Your task to perform on an android device: check the backup settings in the google photos Image 0: 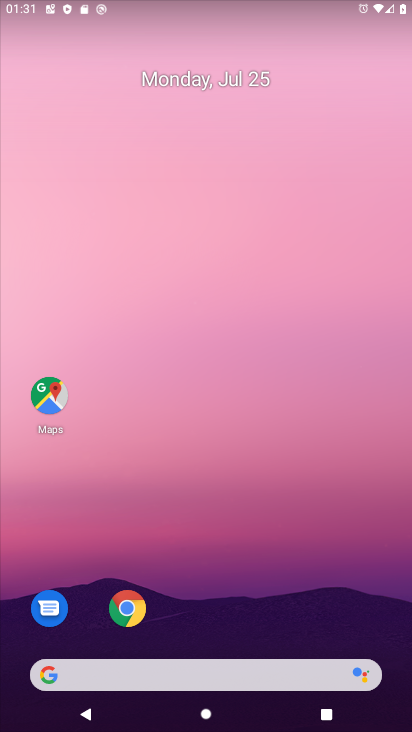
Step 0: drag from (209, 645) to (180, 60)
Your task to perform on an android device: check the backup settings in the google photos Image 1: 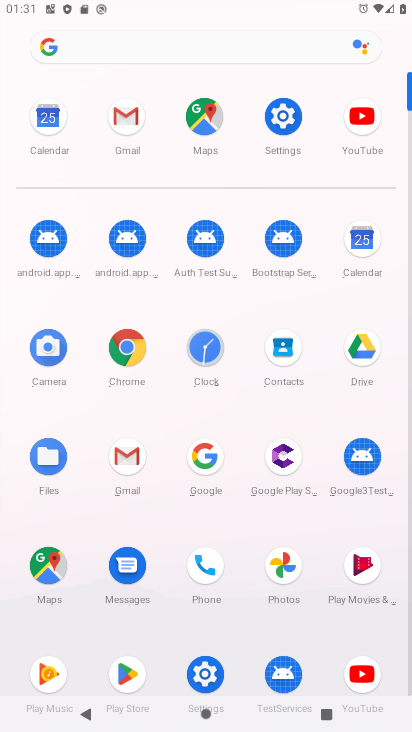
Step 1: click (277, 569)
Your task to perform on an android device: check the backup settings in the google photos Image 2: 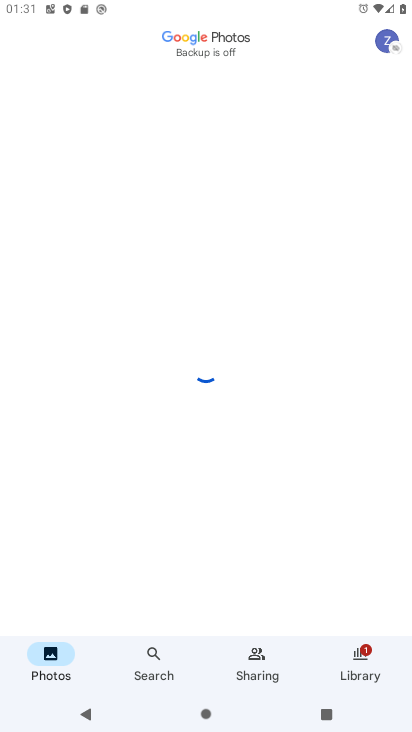
Step 2: click (387, 56)
Your task to perform on an android device: check the backup settings in the google photos Image 3: 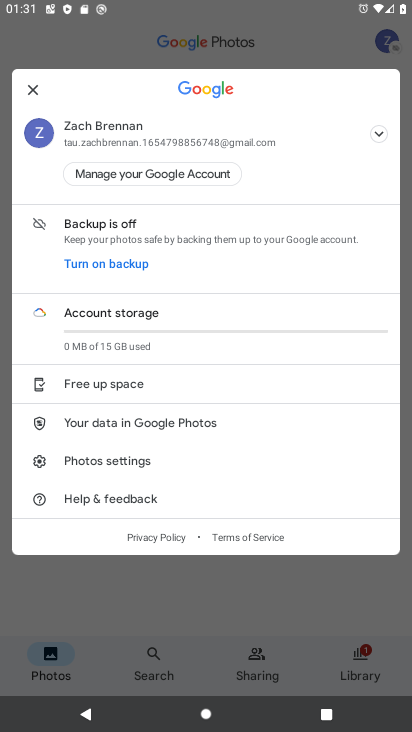
Step 3: click (149, 218)
Your task to perform on an android device: check the backup settings in the google photos Image 4: 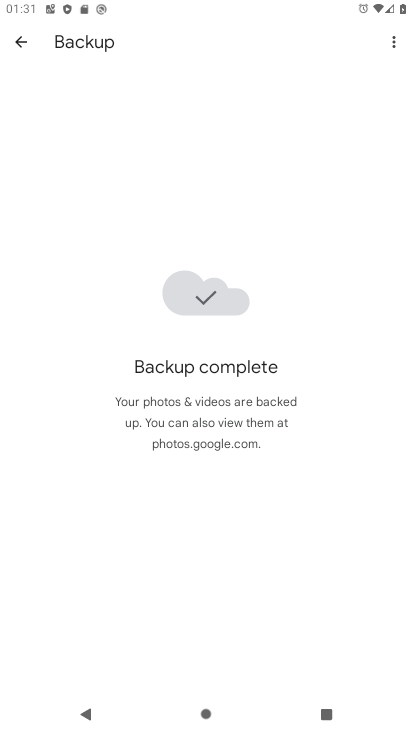
Step 4: task complete